Your task to perform on an android device: change the clock display to analog Image 0: 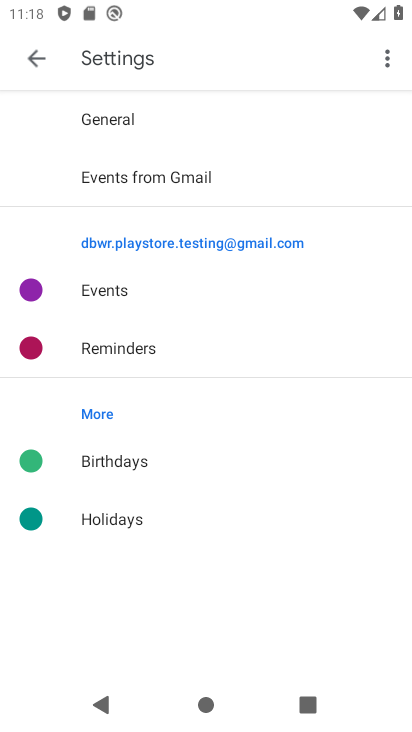
Step 0: press home button
Your task to perform on an android device: change the clock display to analog Image 1: 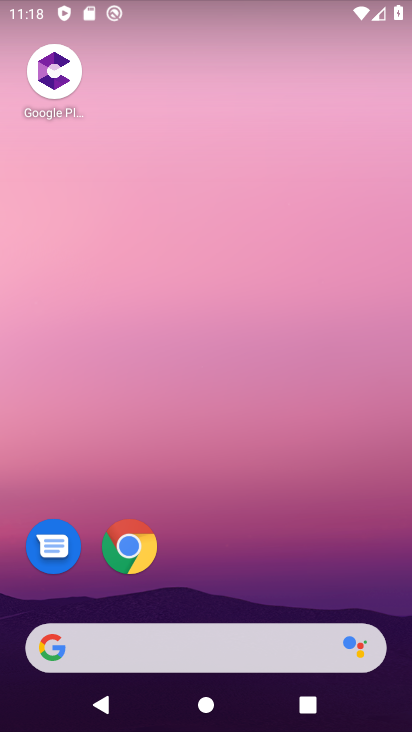
Step 1: drag from (269, 547) to (307, 70)
Your task to perform on an android device: change the clock display to analog Image 2: 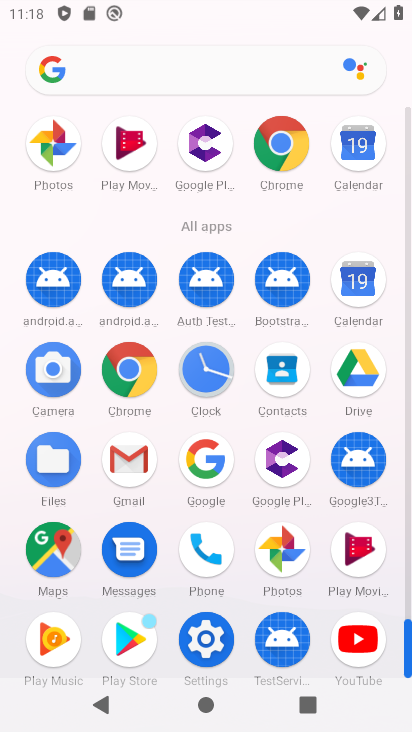
Step 2: click (210, 360)
Your task to perform on an android device: change the clock display to analog Image 3: 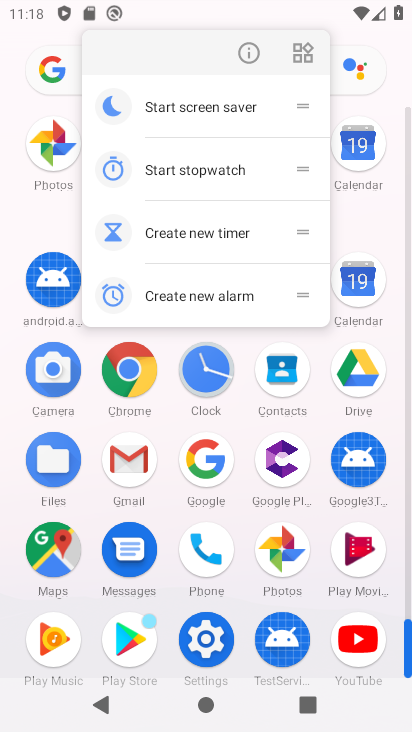
Step 3: click (215, 375)
Your task to perform on an android device: change the clock display to analog Image 4: 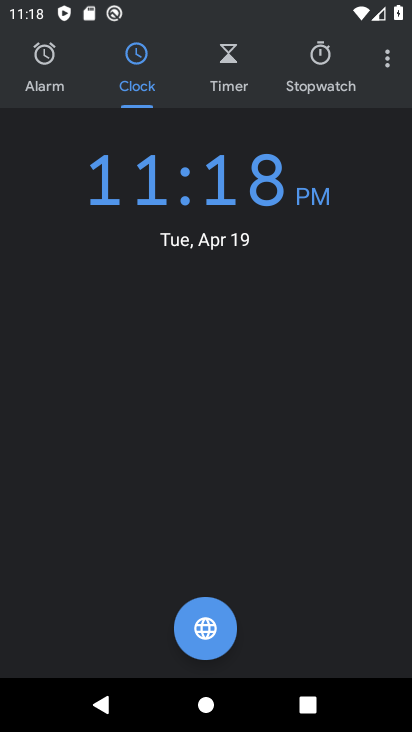
Step 4: click (388, 67)
Your task to perform on an android device: change the clock display to analog Image 5: 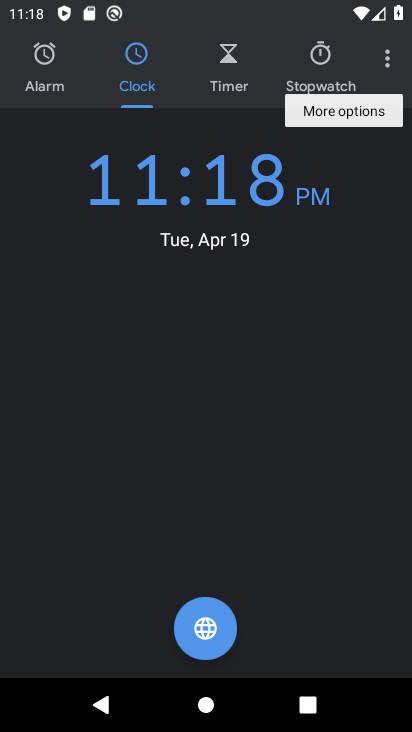
Step 5: click (388, 67)
Your task to perform on an android device: change the clock display to analog Image 6: 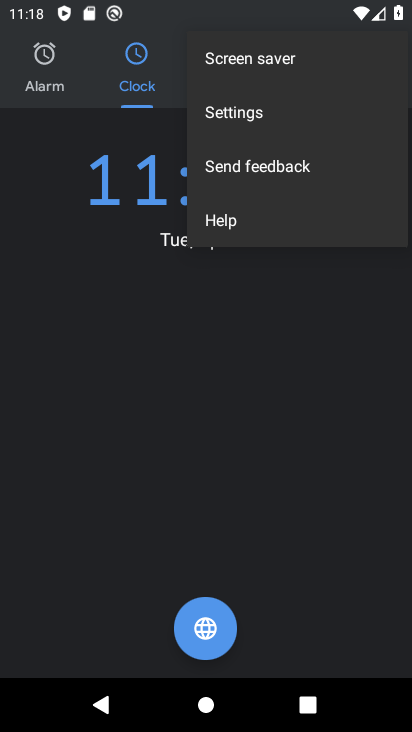
Step 6: click (222, 107)
Your task to perform on an android device: change the clock display to analog Image 7: 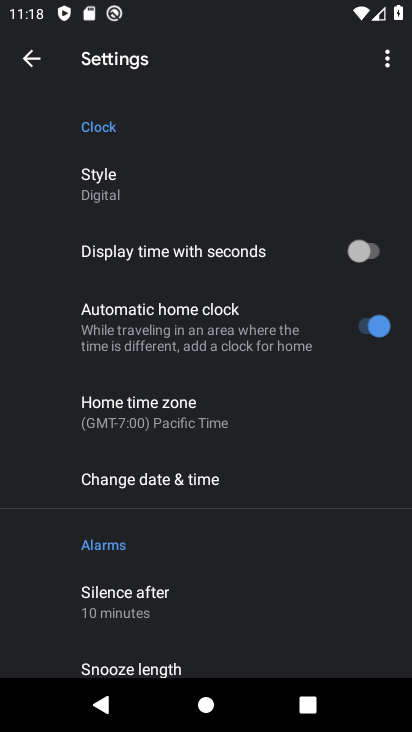
Step 7: click (145, 184)
Your task to perform on an android device: change the clock display to analog Image 8: 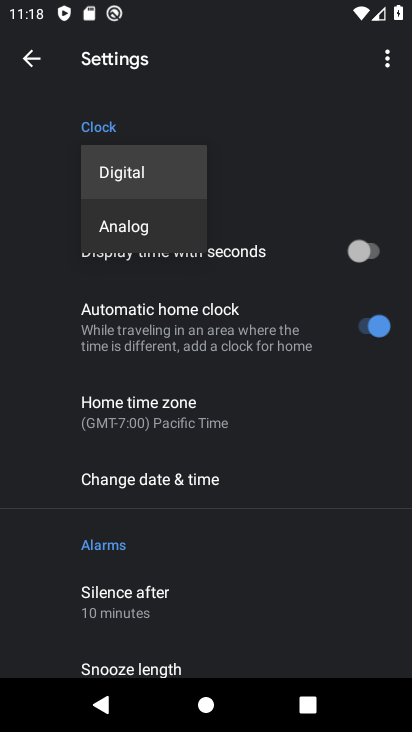
Step 8: click (145, 223)
Your task to perform on an android device: change the clock display to analog Image 9: 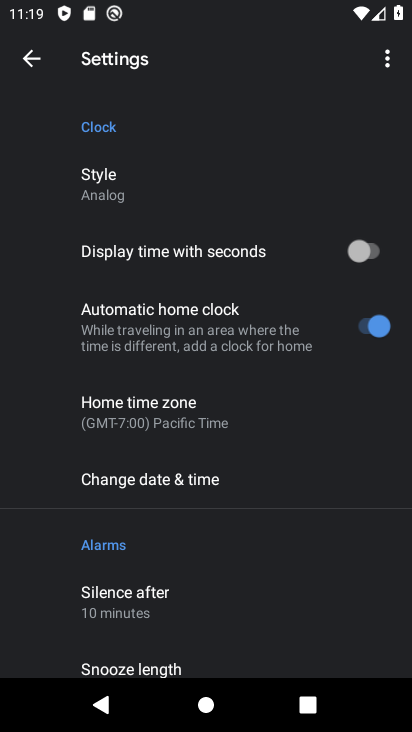
Step 9: task complete